Your task to perform on an android device: delete the emails in spam in the gmail app Image 0: 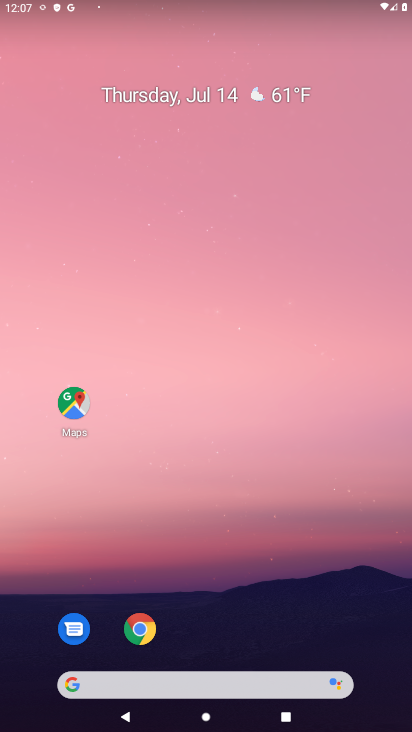
Step 0: drag from (218, 431) to (242, 77)
Your task to perform on an android device: delete the emails in spam in the gmail app Image 1: 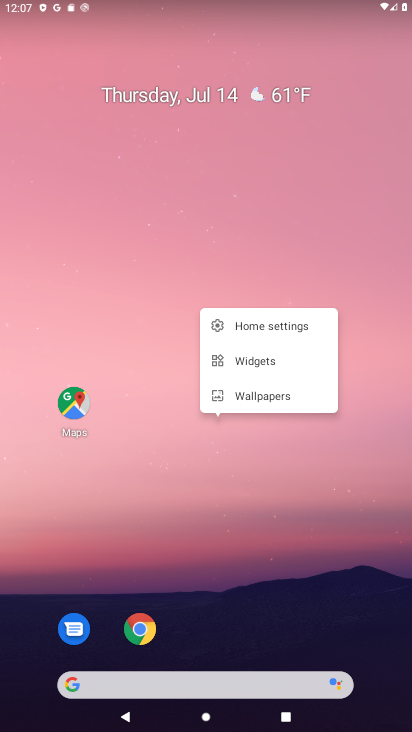
Step 1: drag from (199, 558) to (180, 322)
Your task to perform on an android device: delete the emails in spam in the gmail app Image 2: 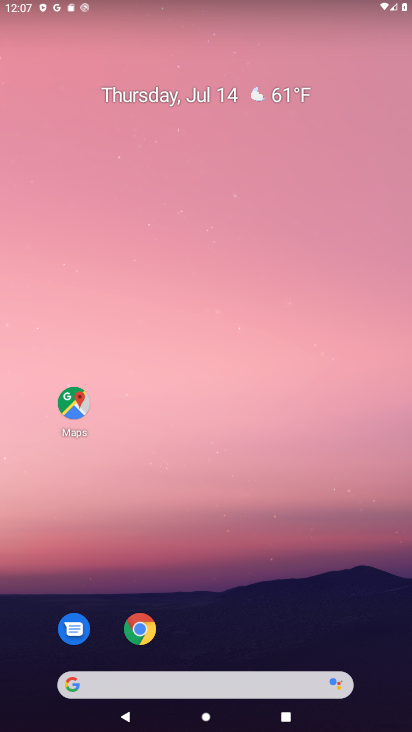
Step 2: drag from (207, 638) to (317, 32)
Your task to perform on an android device: delete the emails in spam in the gmail app Image 3: 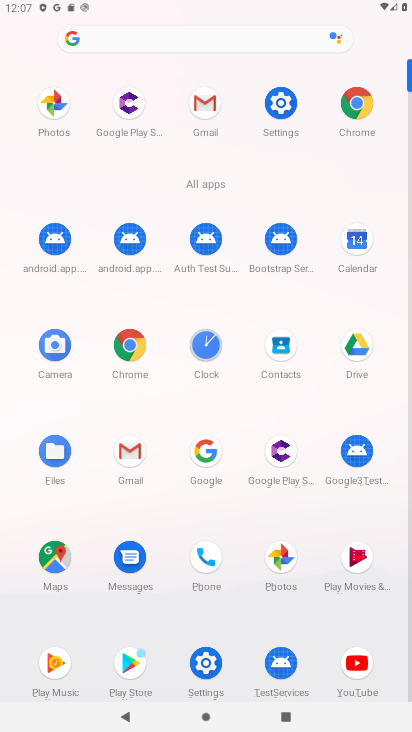
Step 3: click (214, 114)
Your task to perform on an android device: delete the emails in spam in the gmail app Image 4: 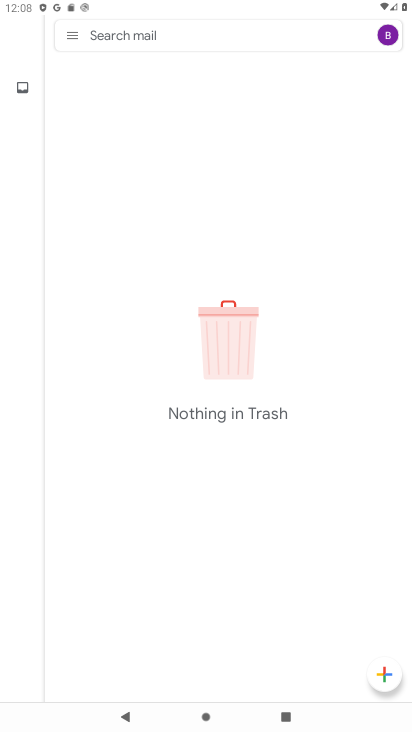
Step 4: click (77, 33)
Your task to perform on an android device: delete the emails in spam in the gmail app Image 5: 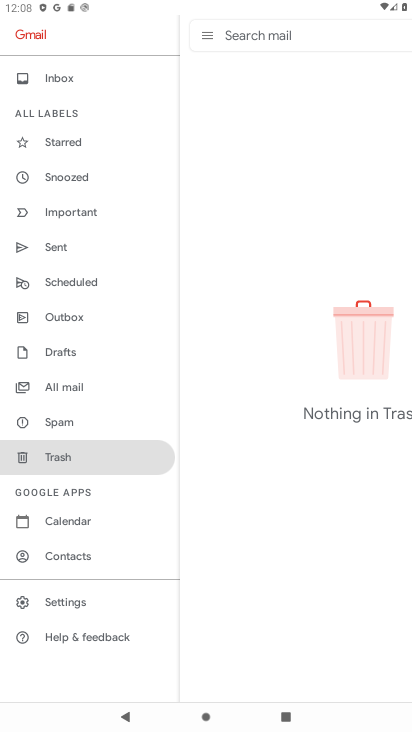
Step 5: click (85, 428)
Your task to perform on an android device: delete the emails in spam in the gmail app Image 6: 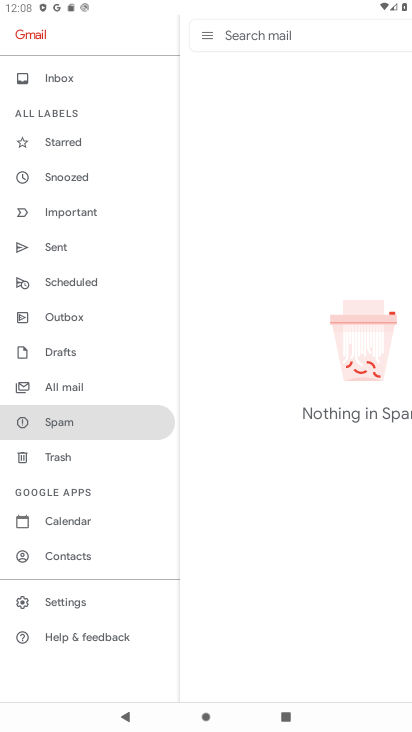
Step 6: task complete